Your task to perform on an android device: Open Chrome and go to settings Image 0: 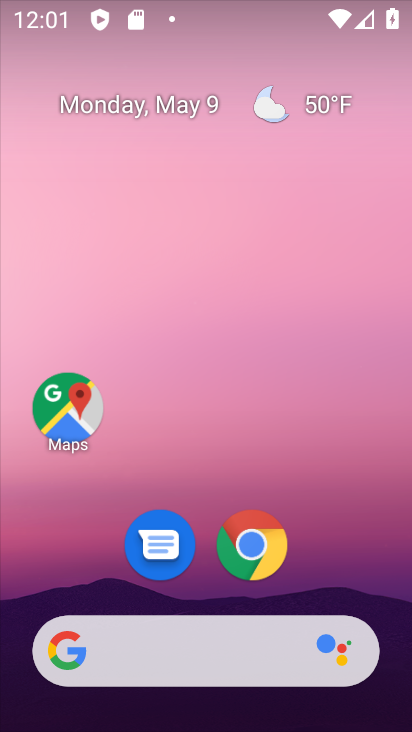
Step 0: click (239, 535)
Your task to perform on an android device: Open Chrome and go to settings Image 1: 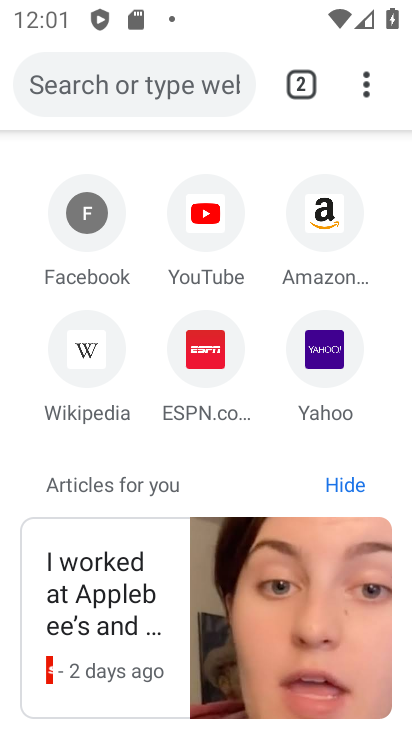
Step 1: task complete